Your task to perform on an android device: open a new tab in the chrome app Image 0: 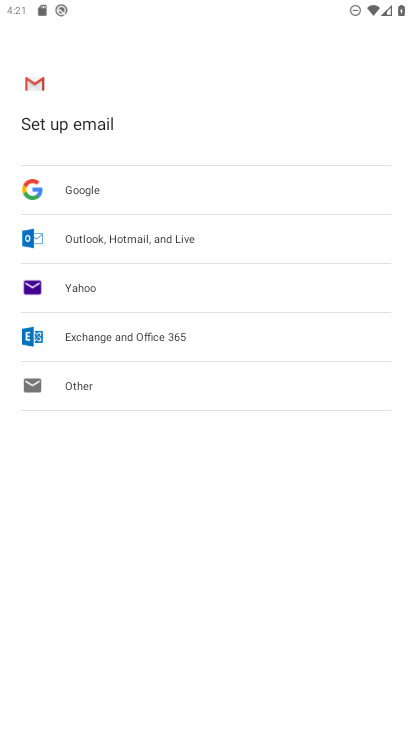
Step 0: press home button
Your task to perform on an android device: open a new tab in the chrome app Image 1: 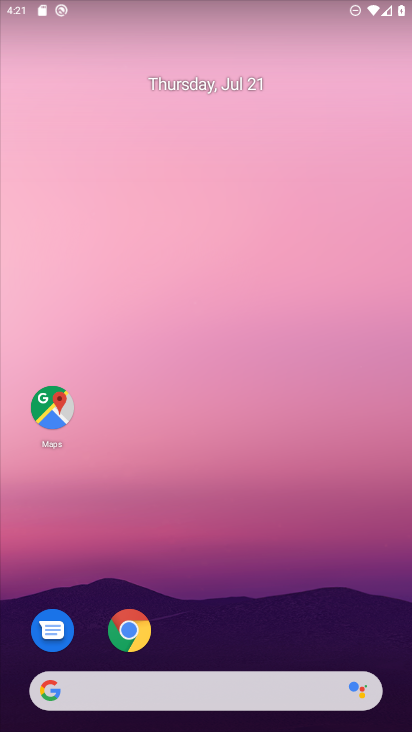
Step 1: click (131, 627)
Your task to perform on an android device: open a new tab in the chrome app Image 2: 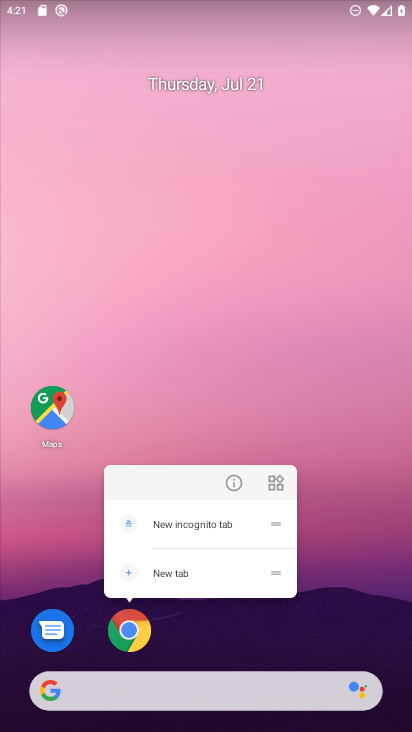
Step 2: click (126, 626)
Your task to perform on an android device: open a new tab in the chrome app Image 3: 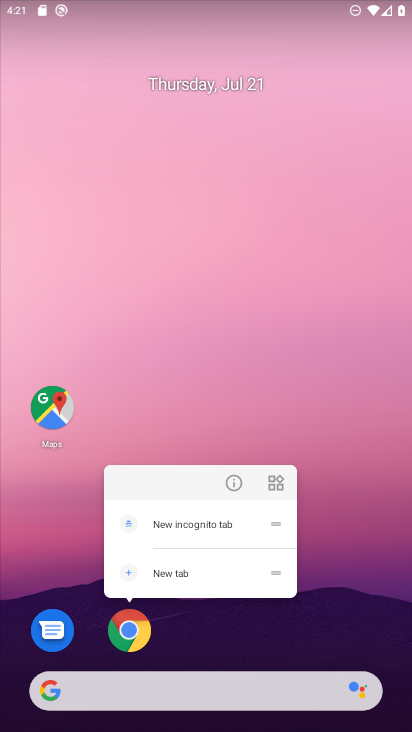
Step 3: click (126, 632)
Your task to perform on an android device: open a new tab in the chrome app Image 4: 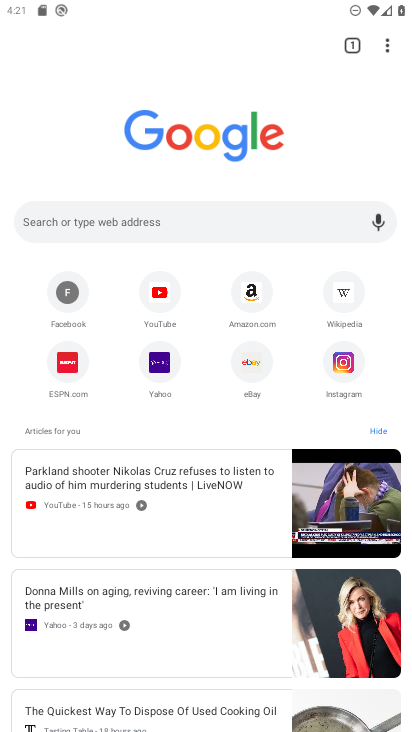
Step 4: click (387, 43)
Your task to perform on an android device: open a new tab in the chrome app Image 5: 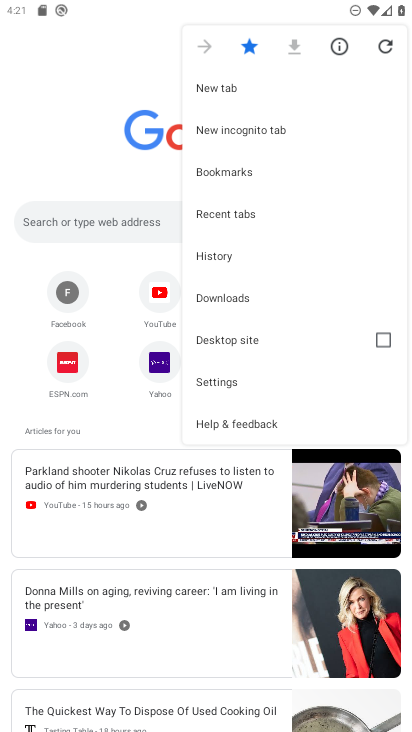
Step 5: click (222, 89)
Your task to perform on an android device: open a new tab in the chrome app Image 6: 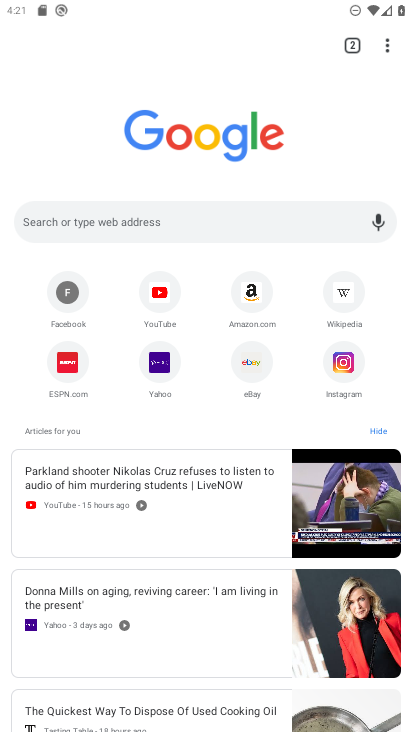
Step 6: task complete